Your task to perform on an android device: Go to internet settings Image 0: 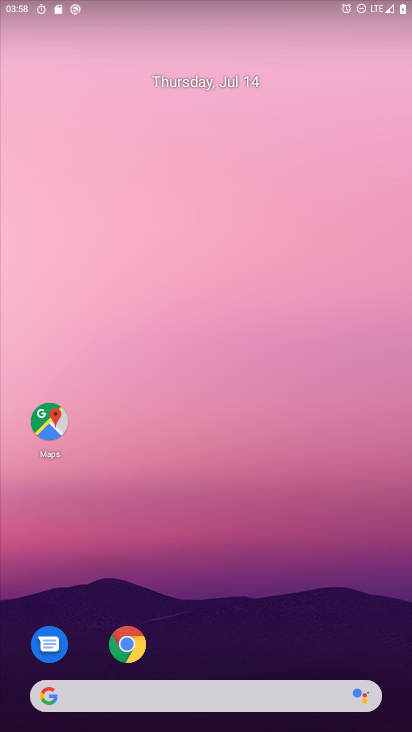
Step 0: drag from (299, 607) to (284, 33)
Your task to perform on an android device: Go to internet settings Image 1: 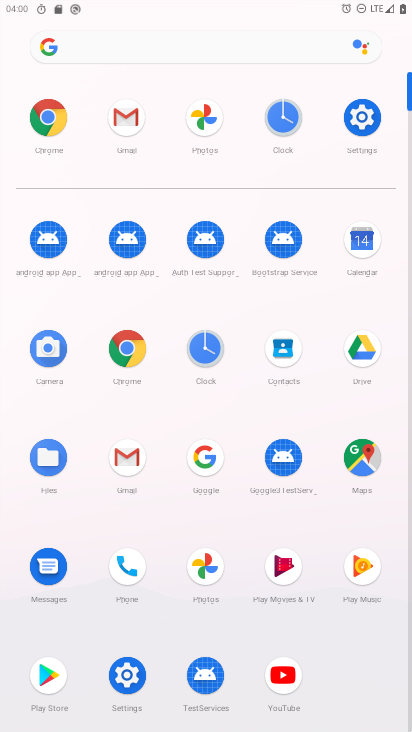
Step 1: click (378, 124)
Your task to perform on an android device: Go to internet settings Image 2: 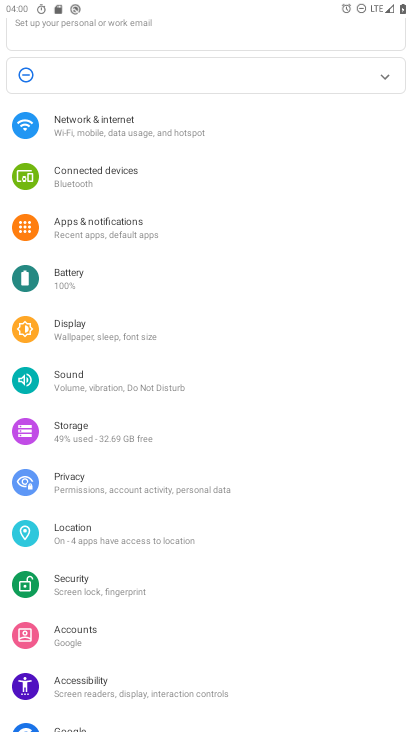
Step 2: click (141, 126)
Your task to perform on an android device: Go to internet settings Image 3: 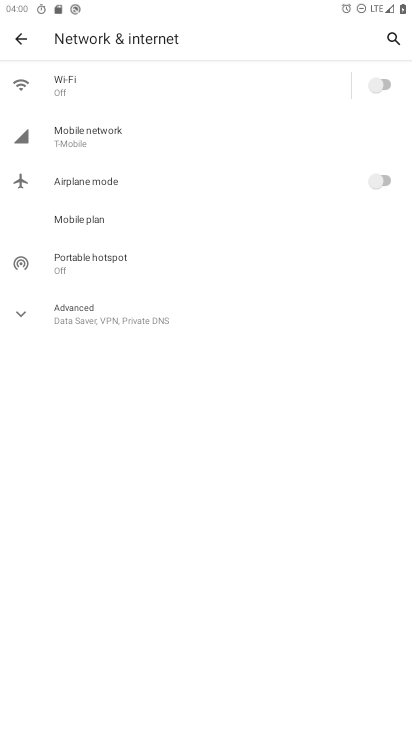
Step 3: click (121, 311)
Your task to perform on an android device: Go to internet settings Image 4: 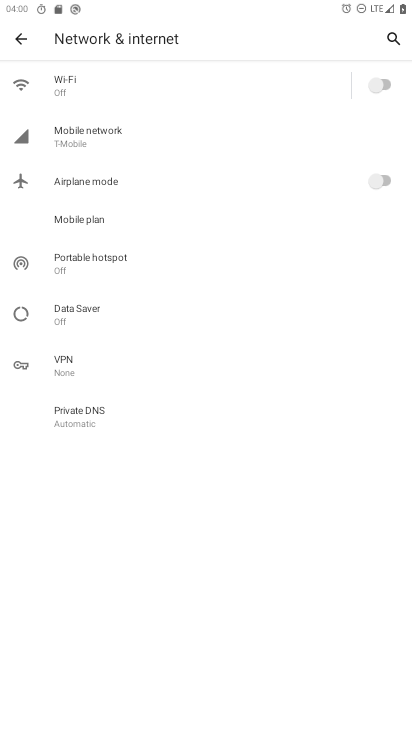
Step 4: task complete